Your task to perform on an android device: open app "Flipkart Online Shopping App" (install if not already installed) Image 0: 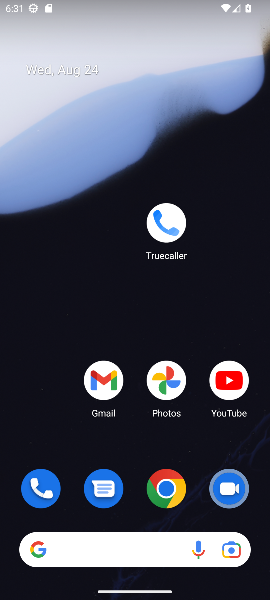
Step 0: drag from (68, 511) to (129, 0)
Your task to perform on an android device: open app "Flipkart Online Shopping App" (install if not already installed) Image 1: 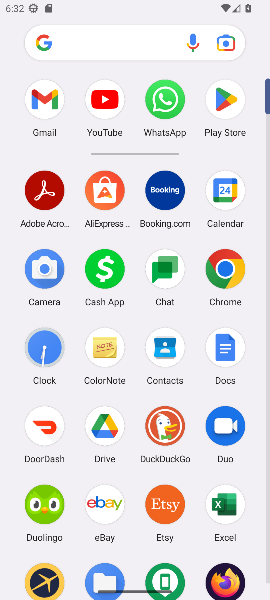
Step 1: click (219, 111)
Your task to perform on an android device: open app "Flipkart Online Shopping App" (install if not already installed) Image 2: 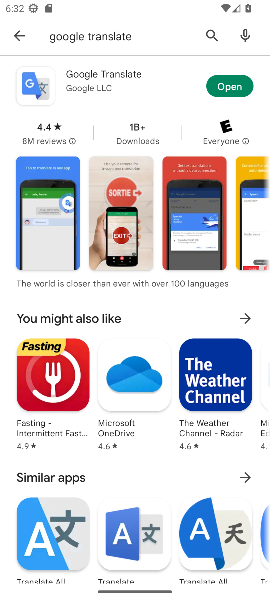
Step 2: click (213, 41)
Your task to perform on an android device: open app "Flipkart Online Shopping App" (install if not already installed) Image 3: 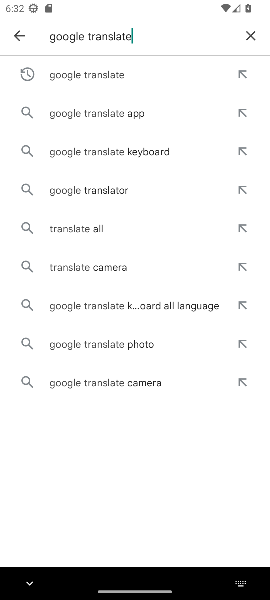
Step 3: click (239, 36)
Your task to perform on an android device: open app "Flipkart Online Shopping App" (install if not already installed) Image 4: 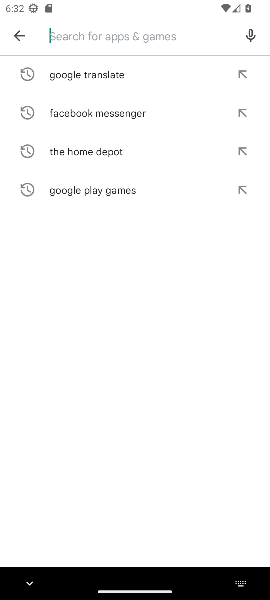
Step 4: type "flipkart"
Your task to perform on an android device: open app "Flipkart Online Shopping App" (install if not already installed) Image 5: 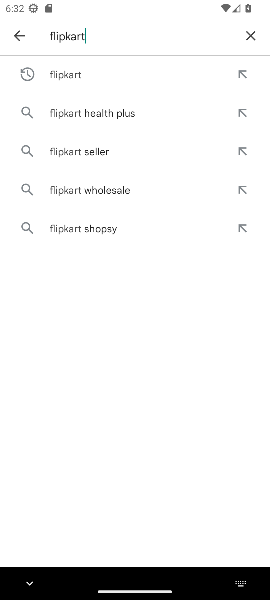
Step 5: click (90, 66)
Your task to perform on an android device: open app "Flipkart Online Shopping App" (install if not already installed) Image 6: 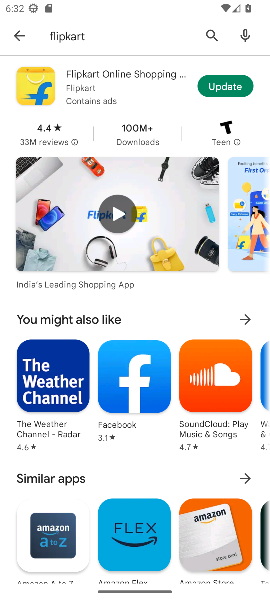
Step 6: click (232, 80)
Your task to perform on an android device: open app "Flipkart Online Shopping App" (install if not already installed) Image 7: 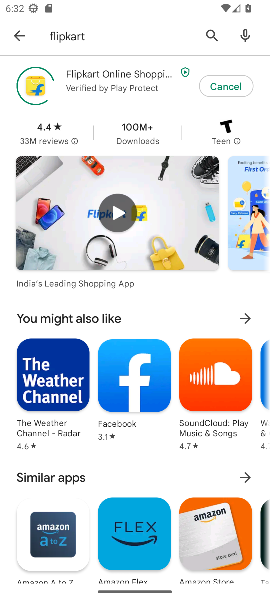
Step 7: task complete